Your task to perform on an android device: toggle wifi Image 0: 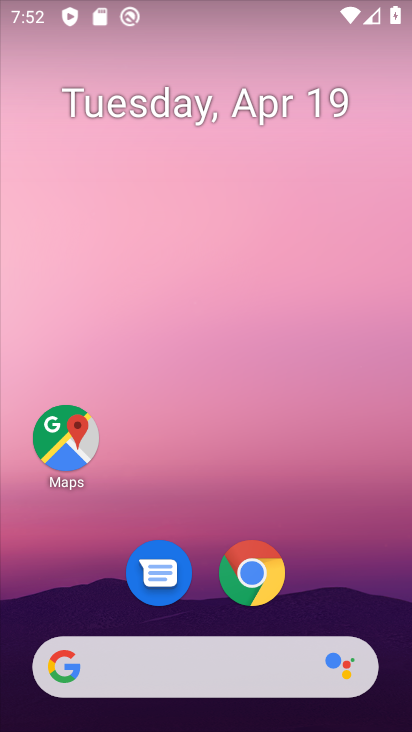
Step 0: drag from (337, 575) to (334, 142)
Your task to perform on an android device: toggle wifi Image 1: 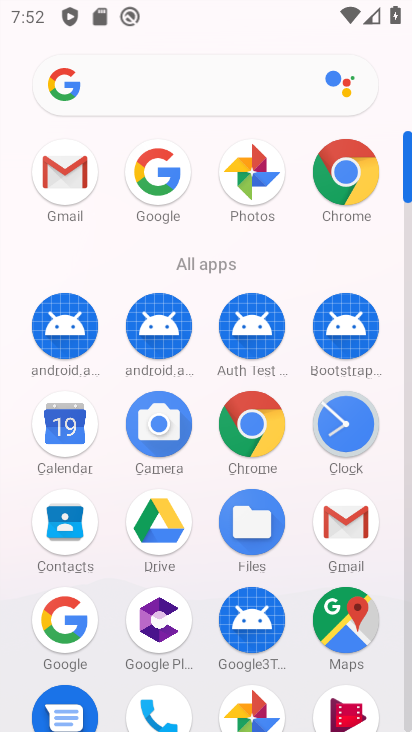
Step 1: drag from (195, 669) to (221, 329)
Your task to perform on an android device: toggle wifi Image 2: 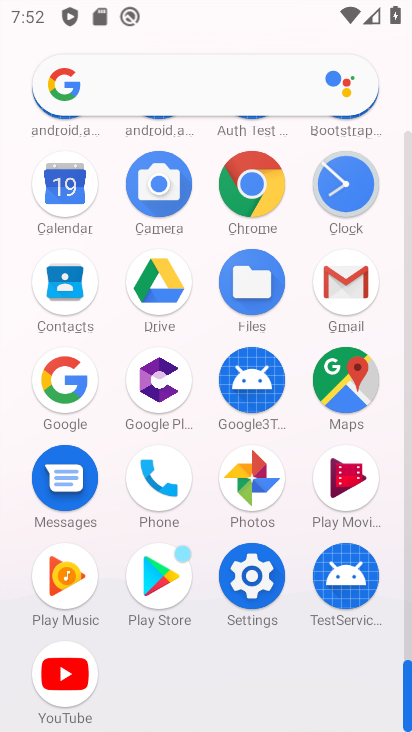
Step 2: click (259, 579)
Your task to perform on an android device: toggle wifi Image 3: 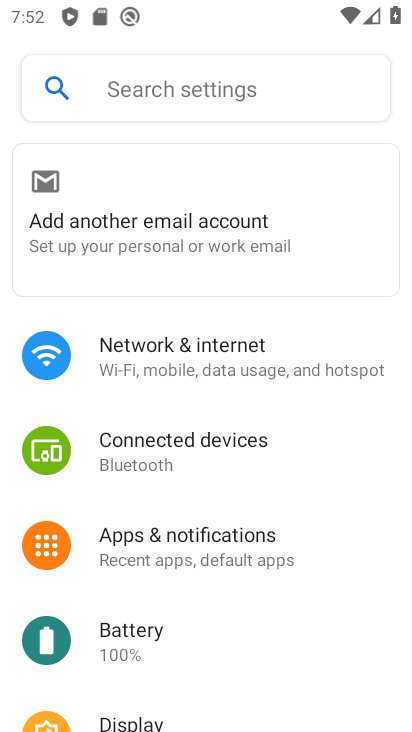
Step 3: click (292, 378)
Your task to perform on an android device: toggle wifi Image 4: 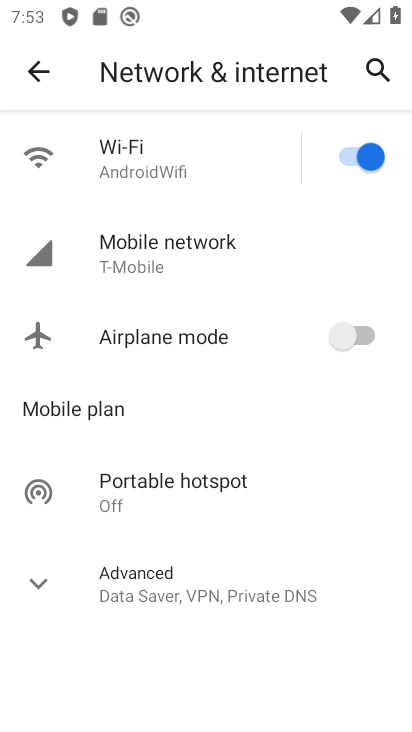
Step 4: click (269, 160)
Your task to perform on an android device: toggle wifi Image 5: 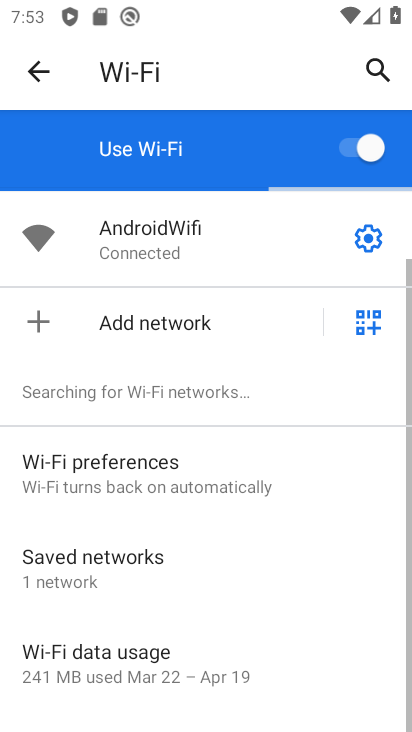
Step 5: click (283, 153)
Your task to perform on an android device: toggle wifi Image 6: 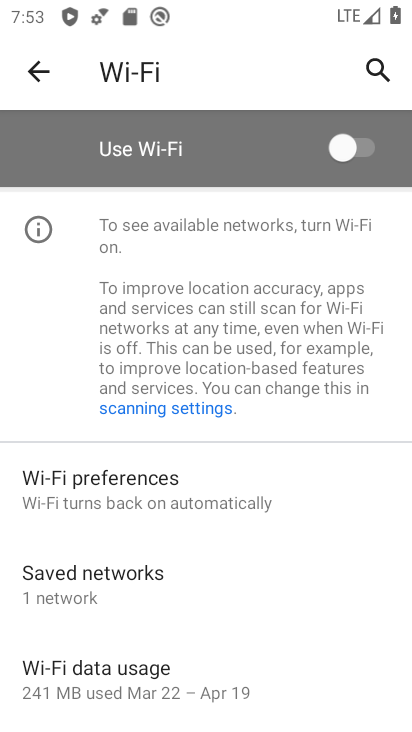
Step 6: task complete